Your task to perform on an android device: Open calendar and show me the fourth week of next month Image 0: 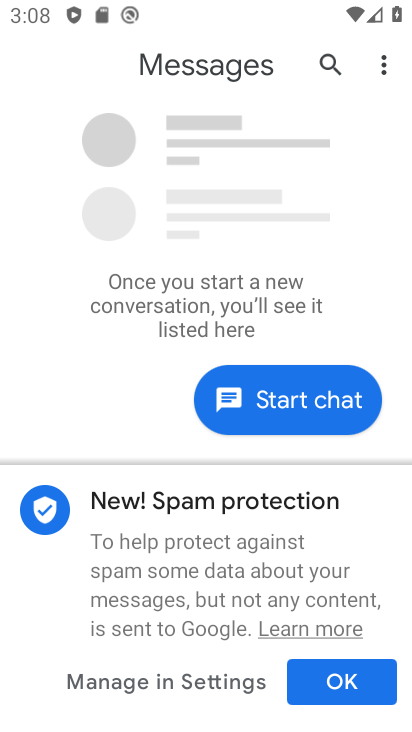
Step 0: press home button
Your task to perform on an android device: Open calendar and show me the fourth week of next month Image 1: 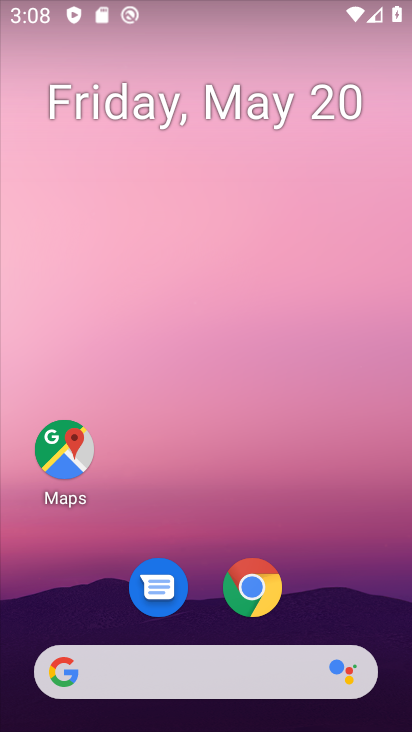
Step 1: drag from (364, 601) to (332, 43)
Your task to perform on an android device: Open calendar and show me the fourth week of next month Image 2: 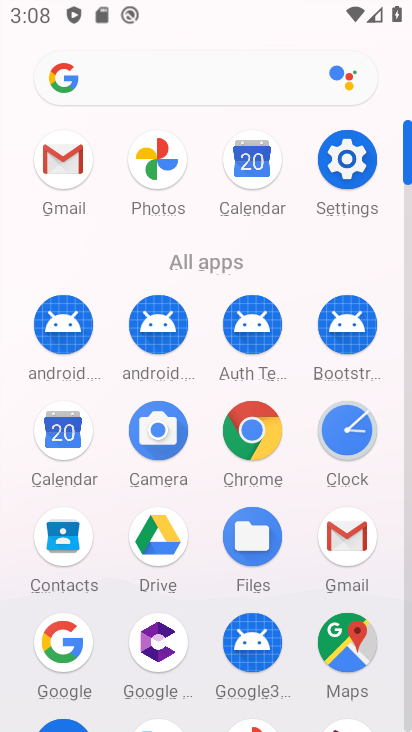
Step 2: click (408, 700)
Your task to perform on an android device: Open calendar and show me the fourth week of next month Image 3: 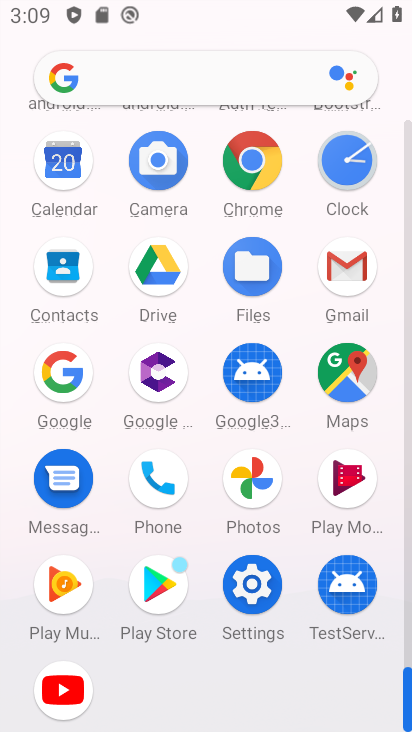
Step 3: click (47, 174)
Your task to perform on an android device: Open calendar and show me the fourth week of next month Image 4: 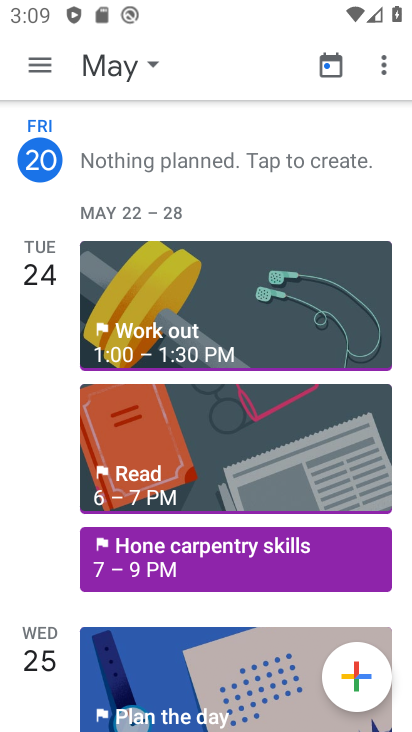
Step 4: click (152, 71)
Your task to perform on an android device: Open calendar and show me the fourth week of next month Image 5: 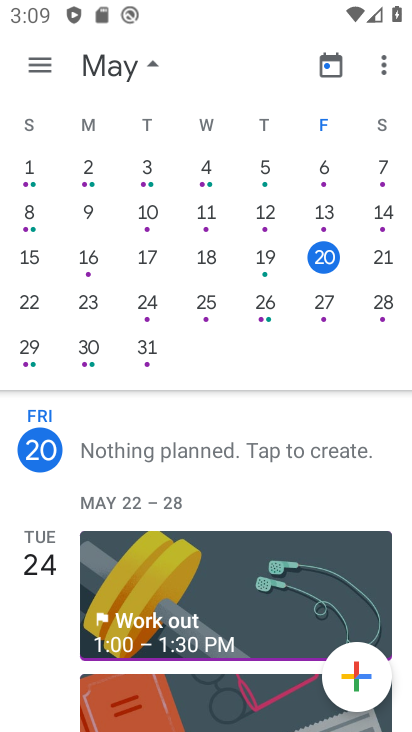
Step 5: drag from (402, 271) to (21, 319)
Your task to perform on an android device: Open calendar and show me the fourth week of next month Image 6: 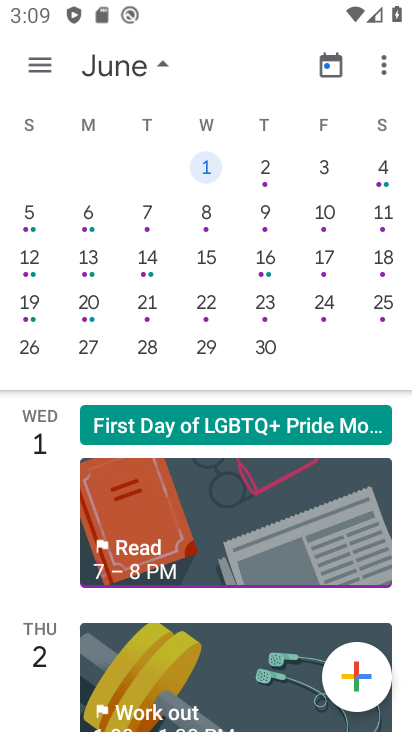
Step 6: click (203, 299)
Your task to perform on an android device: Open calendar and show me the fourth week of next month Image 7: 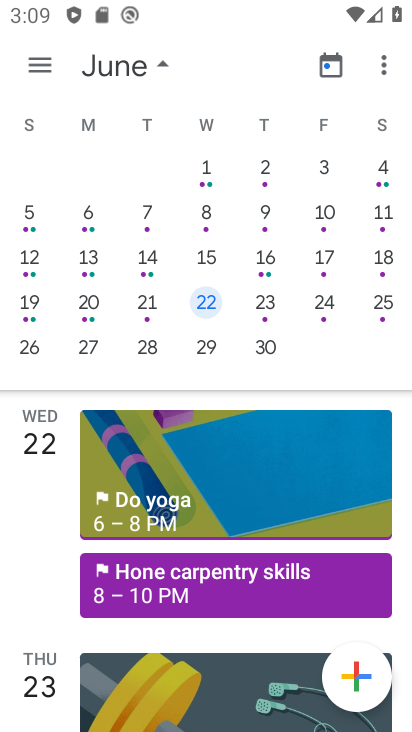
Step 7: task complete